Your task to perform on an android device: turn on airplane mode Image 0: 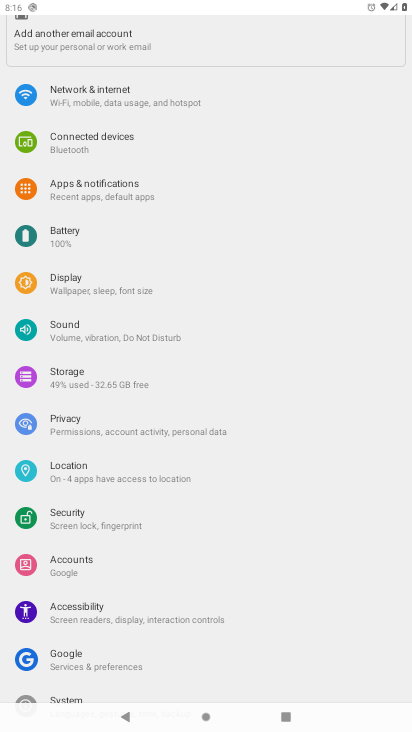
Step 0: click (100, 105)
Your task to perform on an android device: turn on airplane mode Image 1: 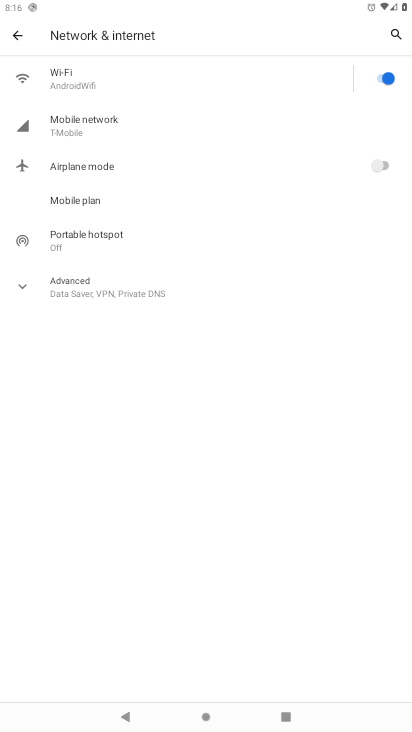
Step 1: click (387, 173)
Your task to perform on an android device: turn on airplane mode Image 2: 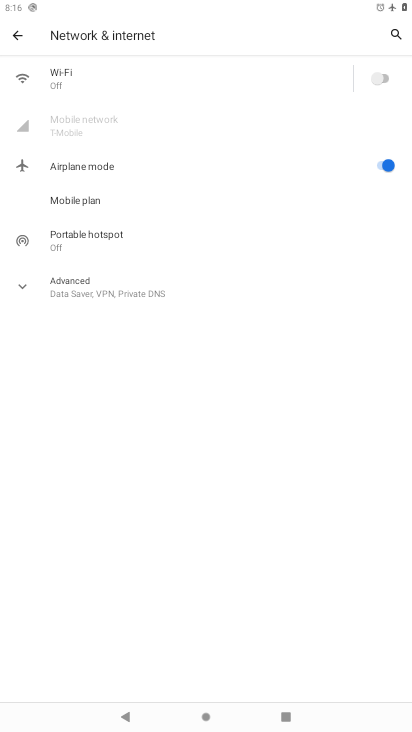
Step 2: task complete